Your task to perform on an android device: Go to network settings Image 0: 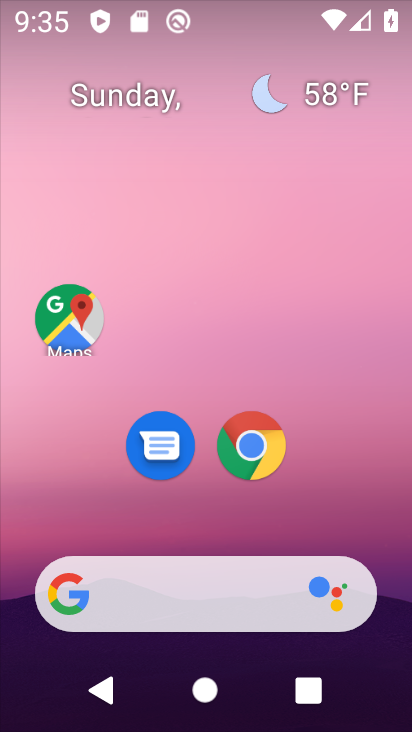
Step 0: drag from (169, 564) to (322, 2)
Your task to perform on an android device: Go to network settings Image 1: 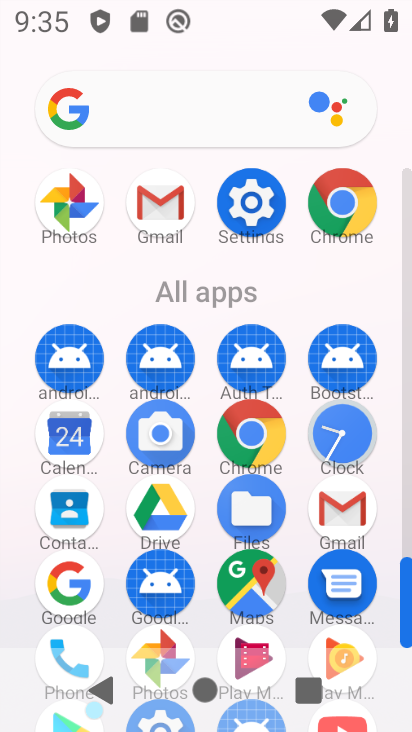
Step 1: click (221, 216)
Your task to perform on an android device: Go to network settings Image 2: 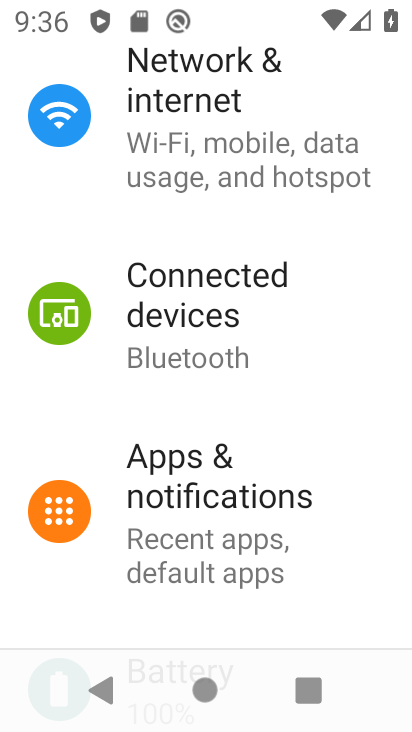
Step 2: click (205, 192)
Your task to perform on an android device: Go to network settings Image 3: 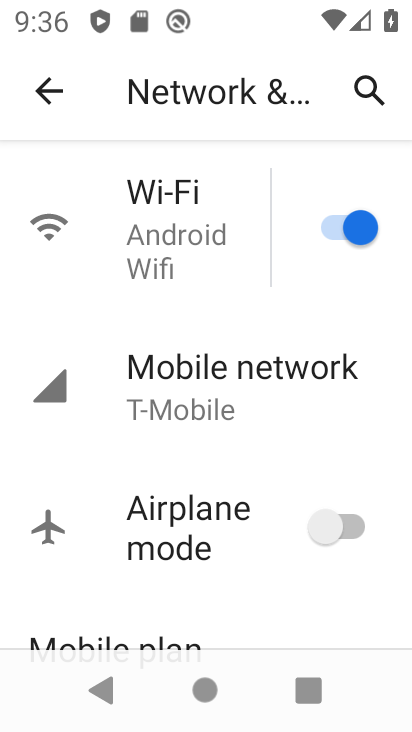
Step 3: task complete